Your task to perform on an android device: Go to Android settings Image 0: 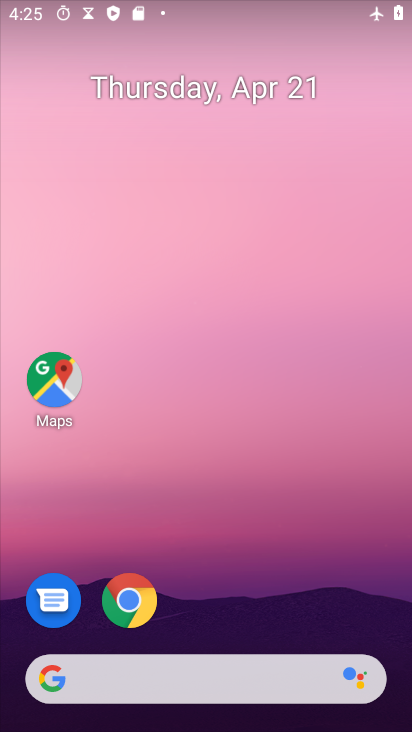
Step 0: drag from (227, 616) to (227, 121)
Your task to perform on an android device: Go to Android settings Image 1: 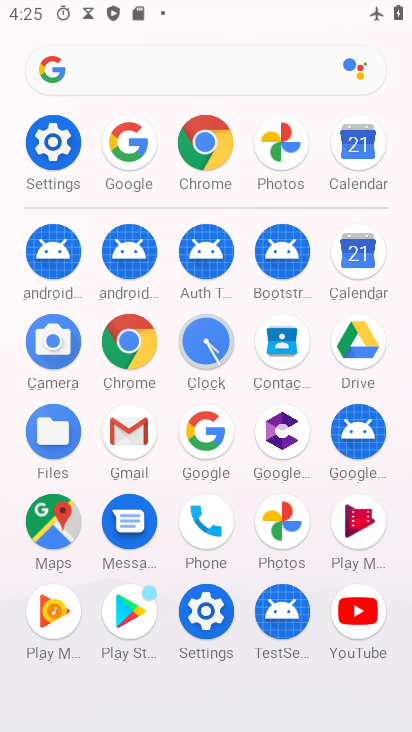
Step 1: click (53, 143)
Your task to perform on an android device: Go to Android settings Image 2: 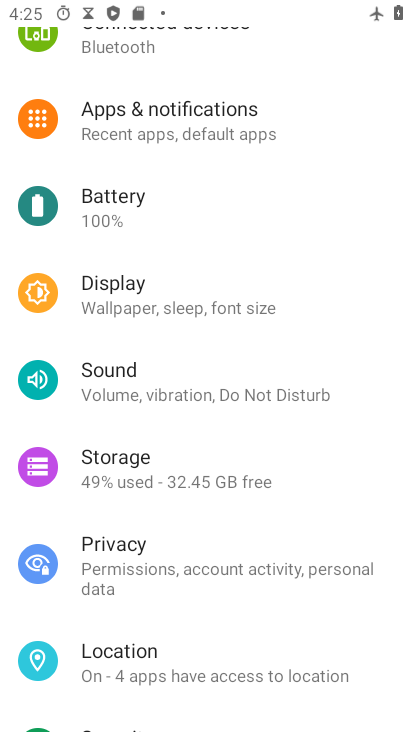
Step 2: task complete